Your task to perform on an android device: change notification settings in the gmail app Image 0: 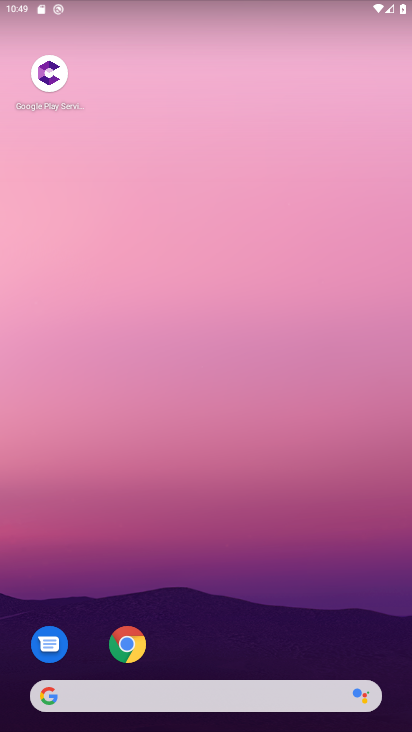
Step 0: drag from (303, 274) to (288, 0)
Your task to perform on an android device: change notification settings in the gmail app Image 1: 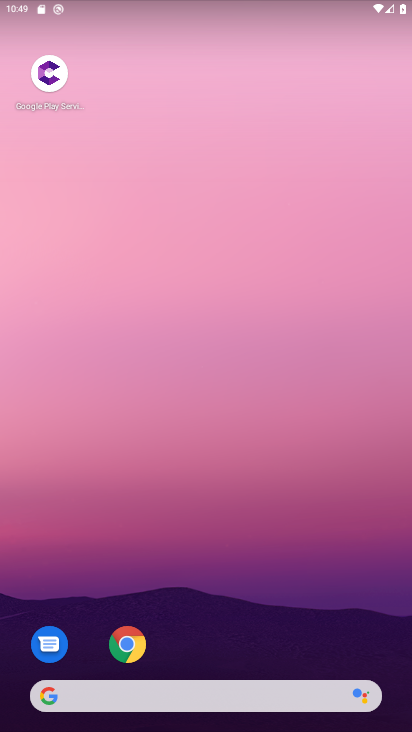
Step 1: drag from (251, 545) to (201, 11)
Your task to perform on an android device: change notification settings in the gmail app Image 2: 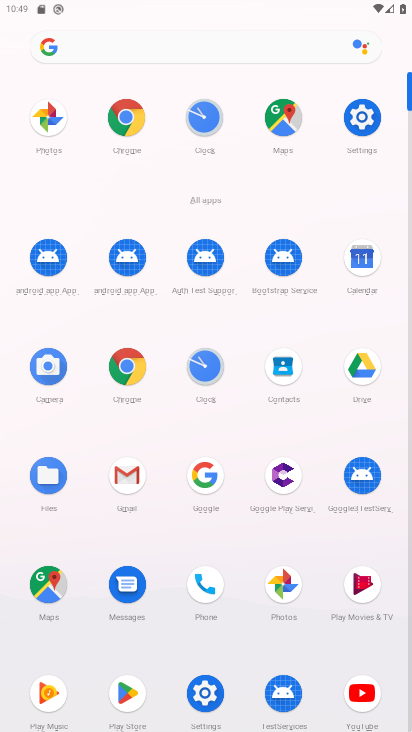
Step 2: click (124, 464)
Your task to perform on an android device: change notification settings in the gmail app Image 3: 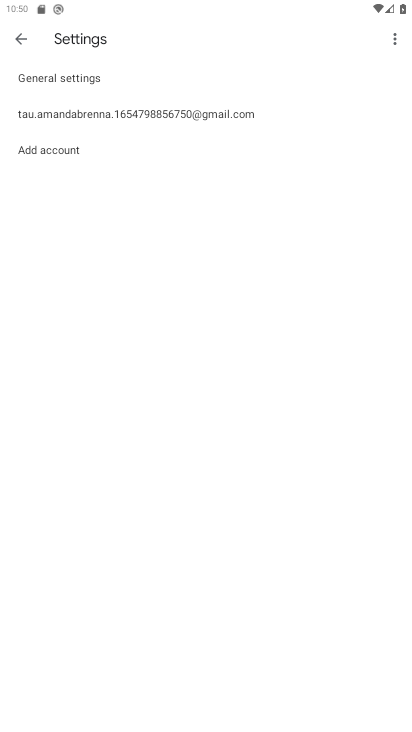
Step 3: click (229, 109)
Your task to perform on an android device: change notification settings in the gmail app Image 4: 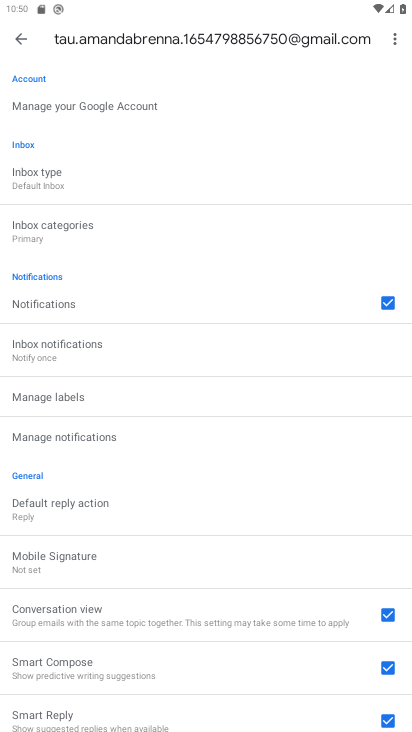
Step 4: click (112, 442)
Your task to perform on an android device: change notification settings in the gmail app Image 5: 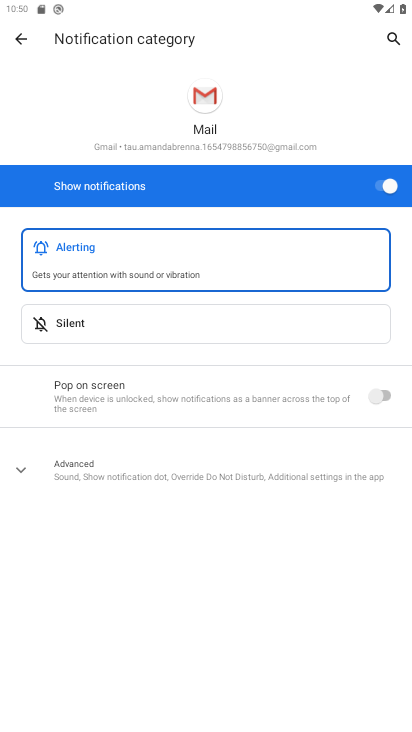
Step 5: click (377, 192)
Your task to perform on an android device: change notification settings in the gmail app Image 6: 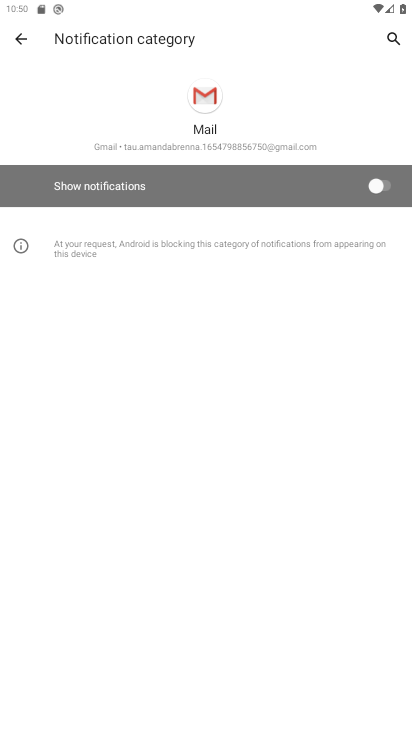
Step 6: task complete